Your task to perform on an android device: open app "Walmart Shopping & Grocery" (install if not already installed) and enter user name: "Hans@icloud.com" and password: "executing" Image 0: 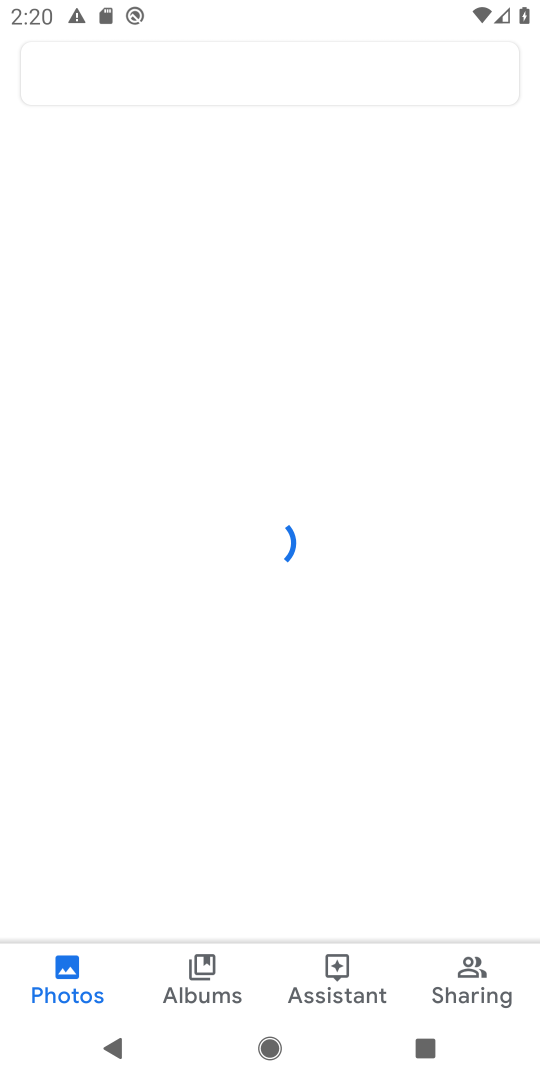
Step 0: press home button
Your task to perform on an android device: open app "Walmart Shopping & Grocery" (install if not already installed) and enter user name: "Hans@icloud.com" and password: "executing" Image 1: 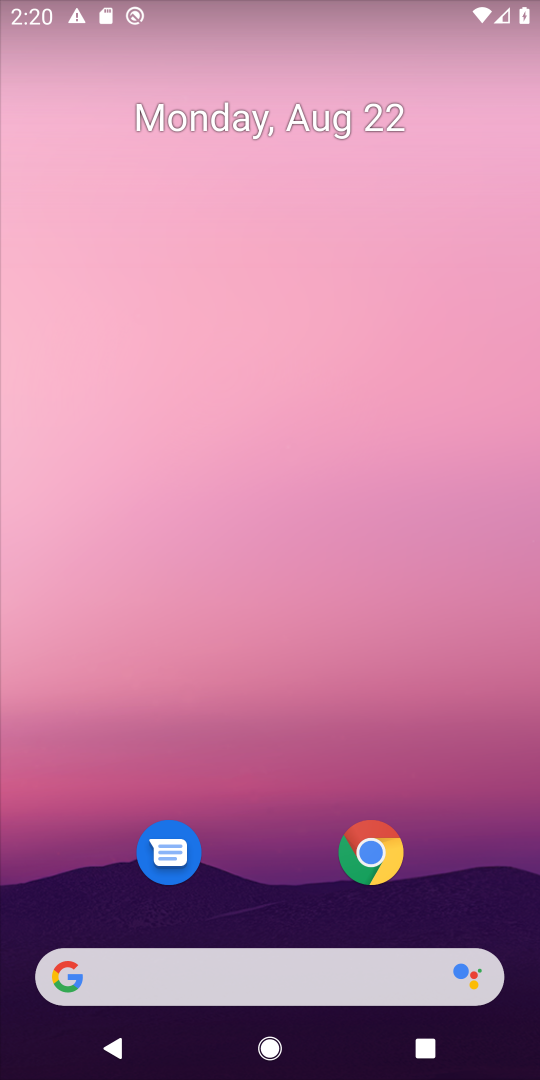
Step 1: drag from (277, 931) to (270, 179)
Your task to perform on an android device: open app "Walmart Shopping & Grocery" (install if not already installed) and enter user name: "Hans@icloud.com" and password: "executing" Image 2: 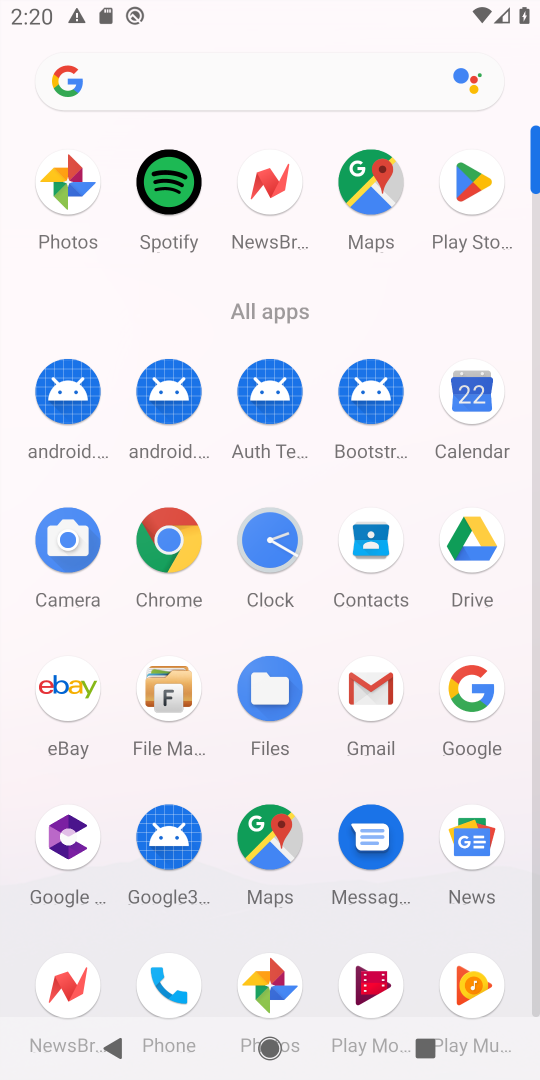
Step 2: click (473, 176)
Your task to perform on an android device: open app "Walmart Shopping & Grocery" (install if not already installed) and enter user name: "Hans@icloud.com" and password: "executing" Image 3: 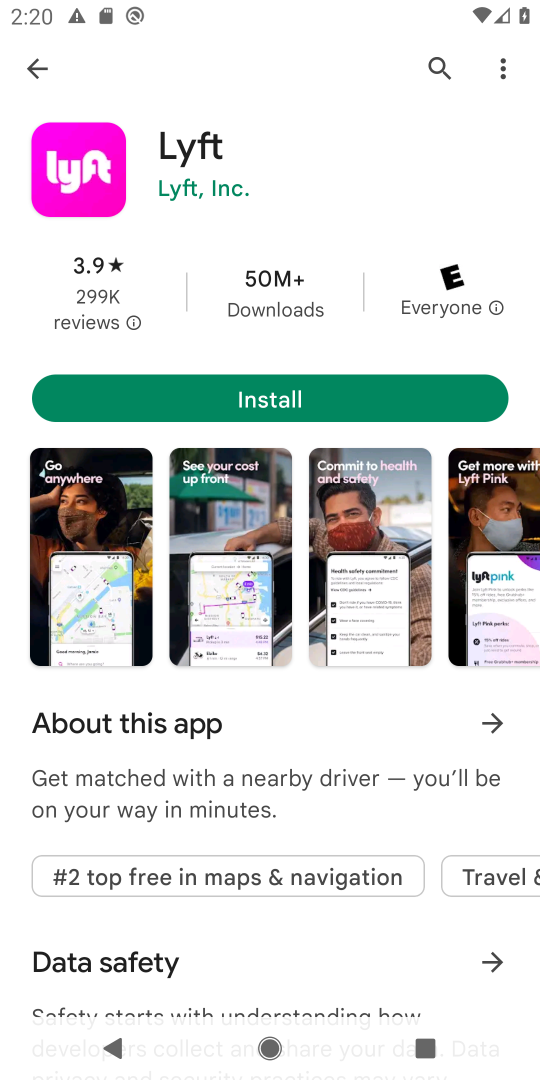
Step 3: click (436, 56)
Your task to perform on an android device: open app "Walmart Shopping & Grocery" (install if not already installed) and enter user name: "Hans@icloud.com" and password: "executing" Image 4: 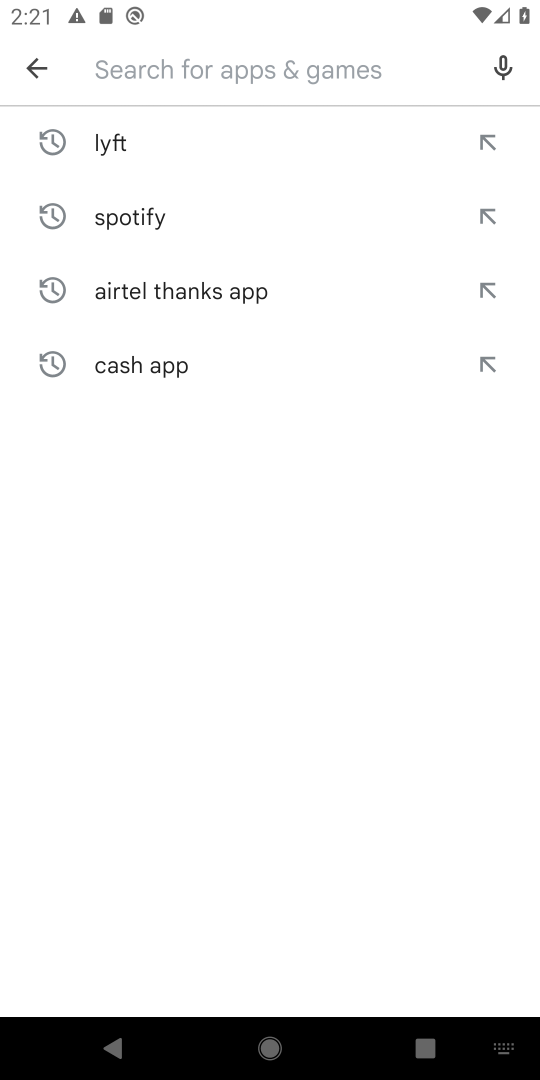
Step 4: type "Walmart Shopping & Grocery"
Your task to perform on an android device: open app "Walmart Shopping & Grocery" (install if not already installed) and enter user name: "Hans@icloud.com" and password: "executing" Image 5: 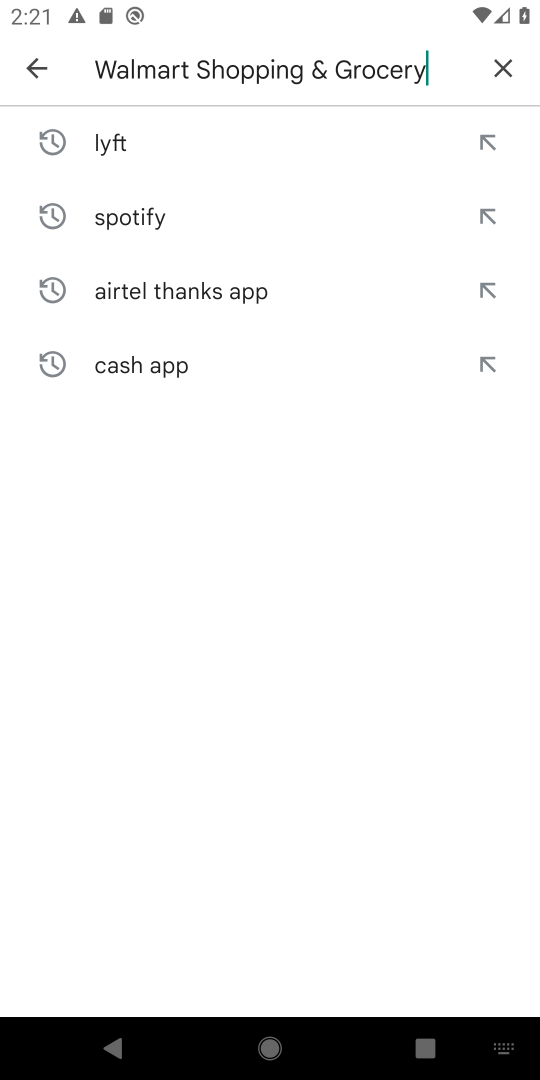
Step 5: type ""
Your task to perform on an android device: open app "Walmart Shopping & Grocery" (install if not already installed) and enter user name: "Hans@icloud.com" and password: "executing" Image 6: 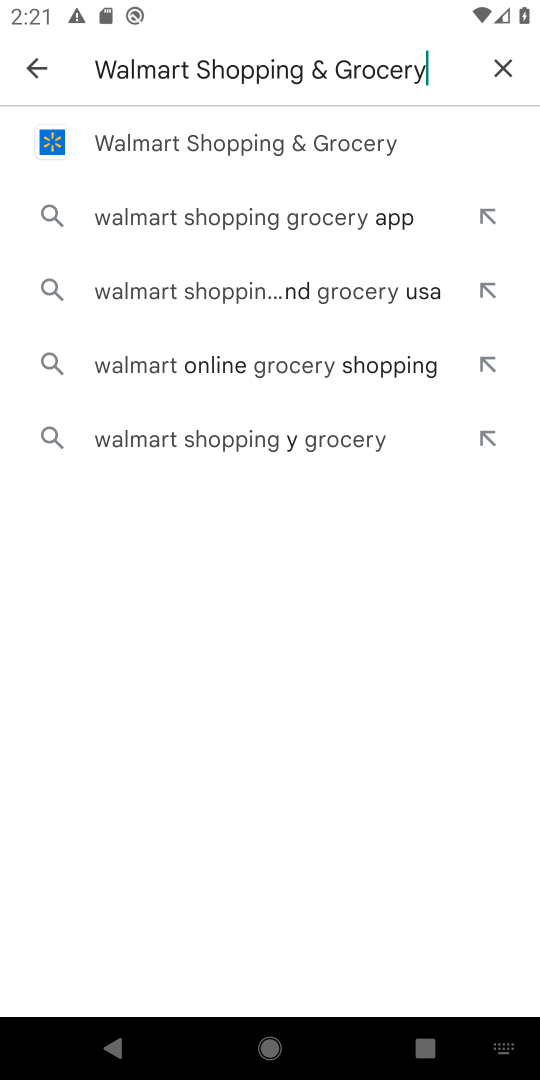
Step 6: click (283, 145)
Your task to perform on an android device: open app "Walmart Shopping & Grocery" (install if not already installed) and enter user name: "Hans@icloud.com" and password: "executing" Image 7: 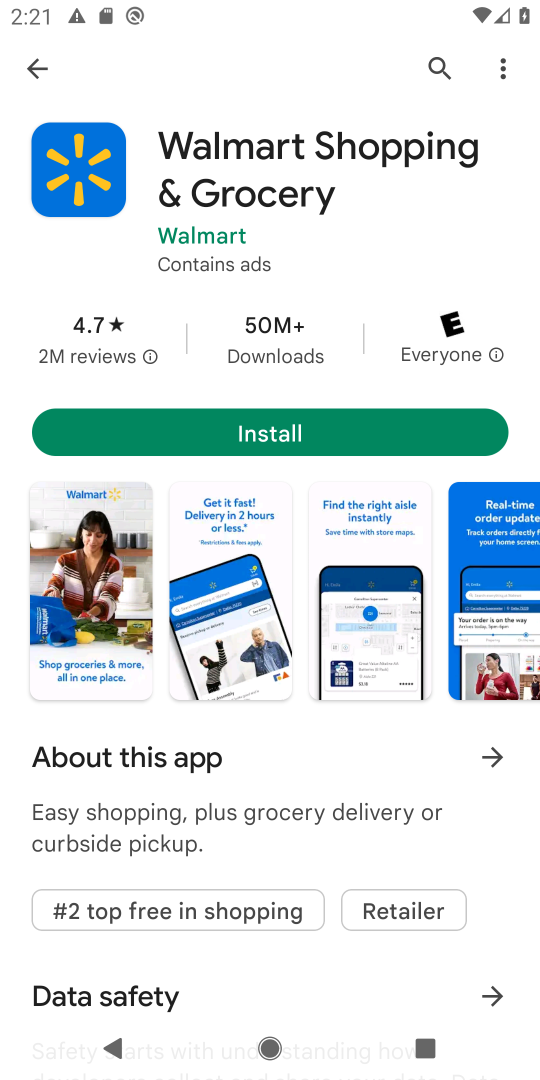
Step 7: click (265, 432)
Your task to perform on an android device: open app "Walmart Shopping & Grocery" (install if not already installed) and enter user name: "Hans@icloud.com" and password: "executing" Image 8: 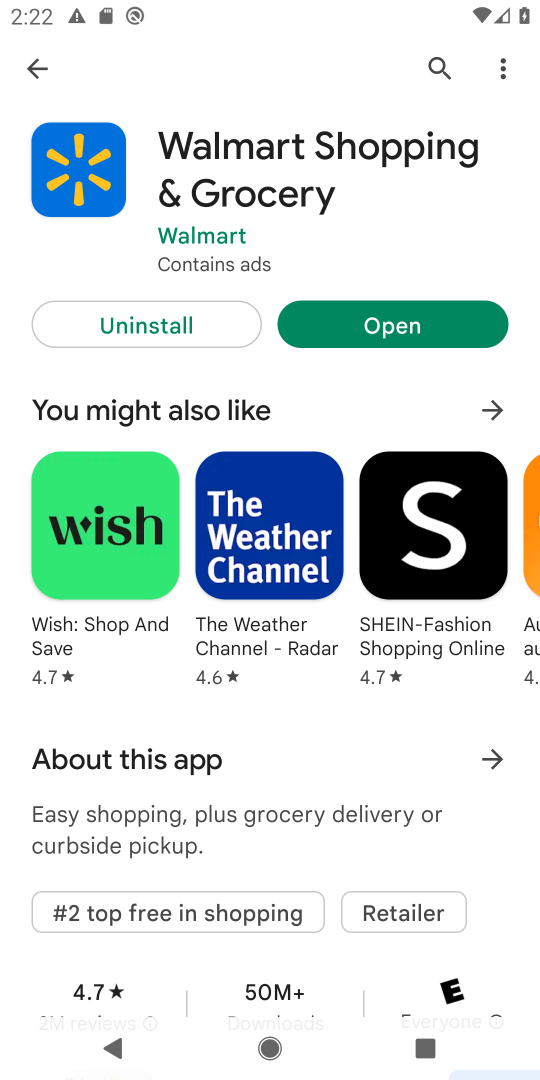
Step 8: click (403, 319)
Your task to perform on an android device: open app "Walmart Shopping & Grocery" (install if not already installed) and enter user name: "Hans@icloud.com" and password: "executing" Image 9: 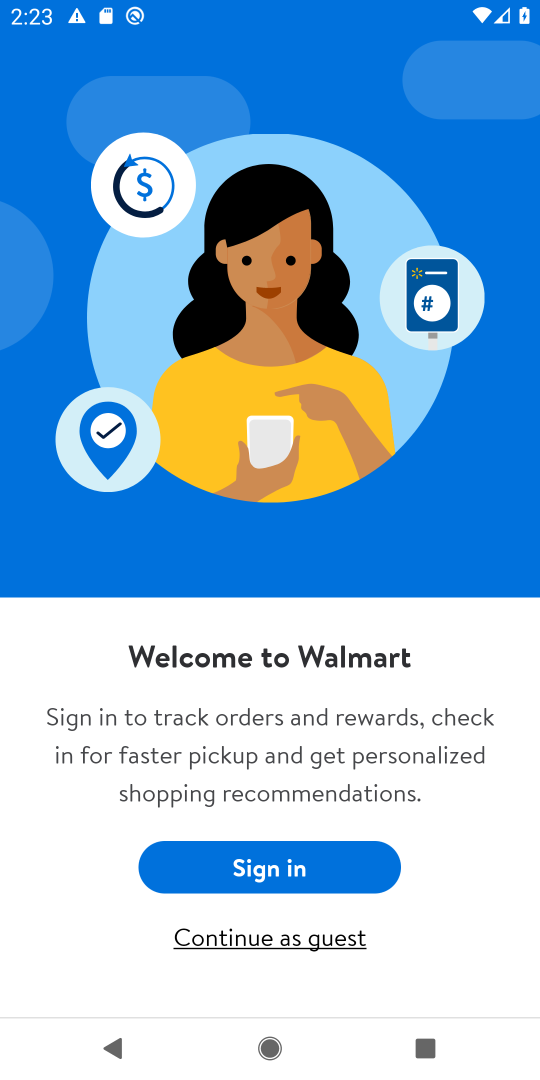
Step 9: click (263, 872)
Your task to perform on an android device: open app "Walmart Shopping & Grocery" (install if not already installed) and enter user name: "Hans@icloud.com" and password: "executing" Image 10: 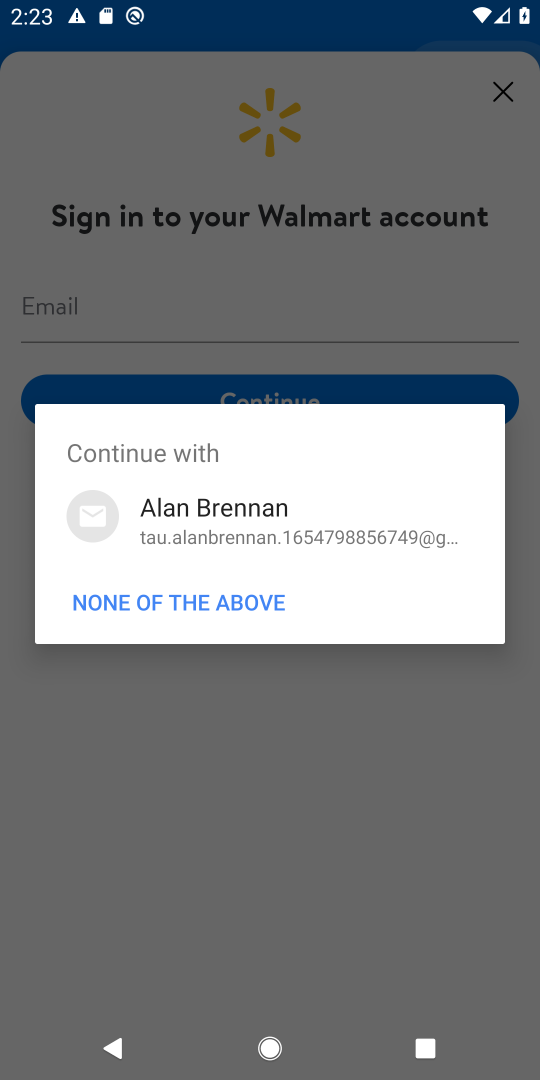
Step 10: click (375, 304)
Your task to perform on an android device: open app "Walmart Shopping & Grocery" (install if not already installed) and enter user name: "Hans@icloud.com" and password: "executing" Image 11: 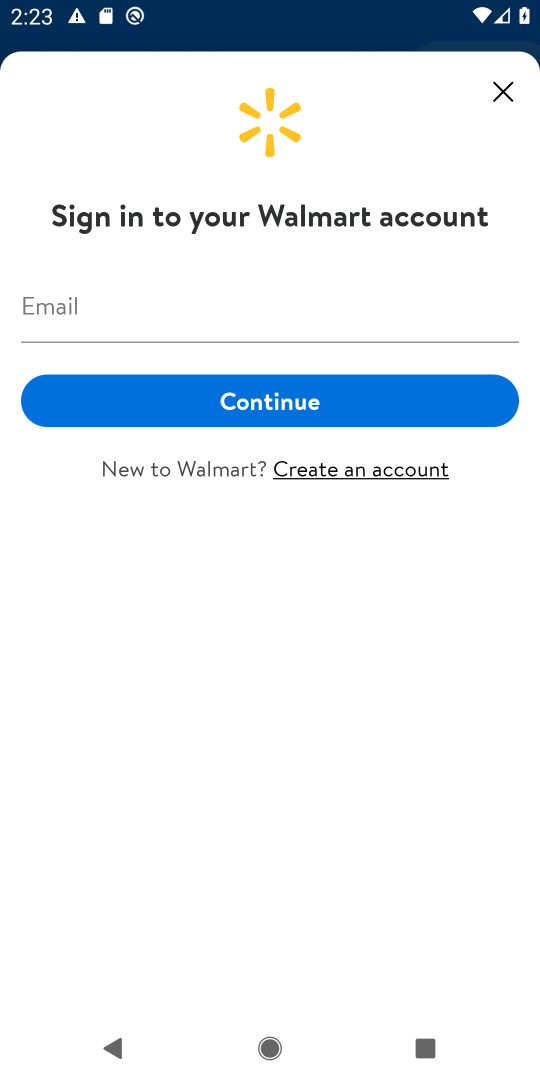
Step 11: click (326, 315)
Your task to perform on an android device: open app "Walmart Shopping & Grocery" (install if not already installed) and enter user name: "Hans@icloud.com" and password: "executing" Image 12: 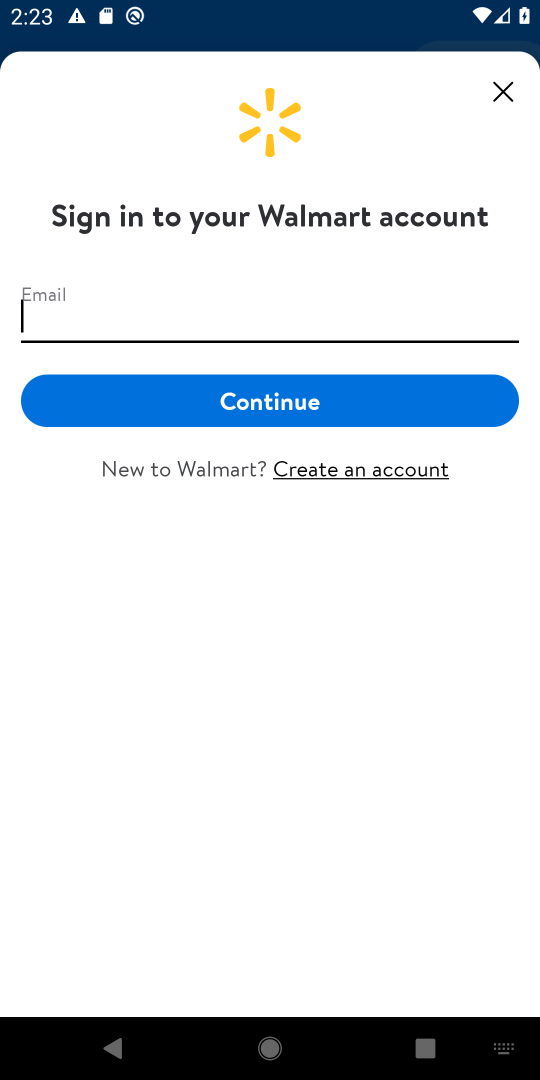
Step 12: type "Hans@icloud.com"
Your task to perform on an android device: open app "Walmart Shopping & Grocery" (install if not already installed) and enter user name: "Hans@icloud.com" and password: "executing" Image 13: 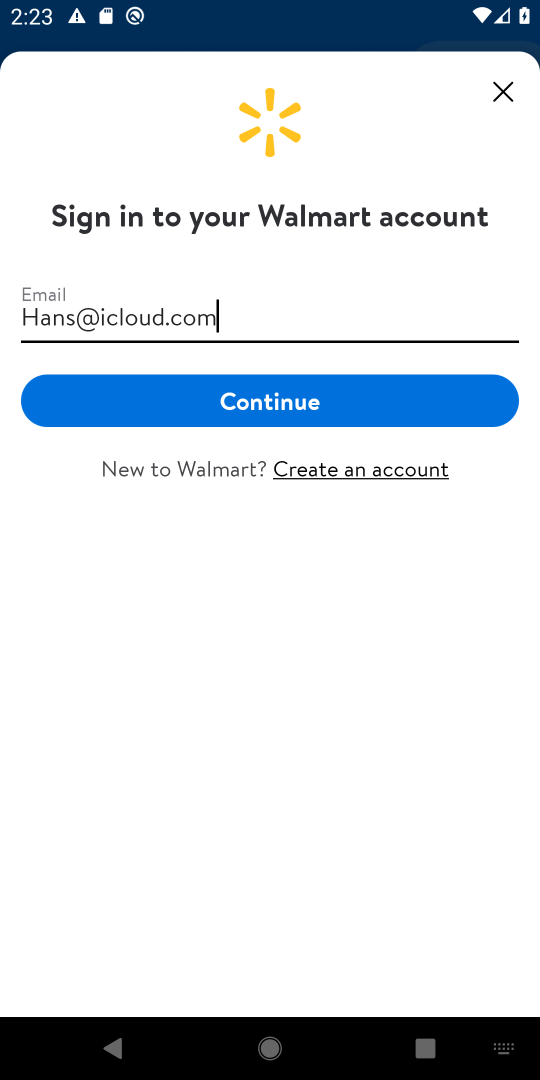
Step 13: type ""
Your task to perform on an android device: open app "Walmart Shopping & Grocery" (install if not already installed) and enter user name: "Hans@icloud.com" and password: "executing" Image 14: 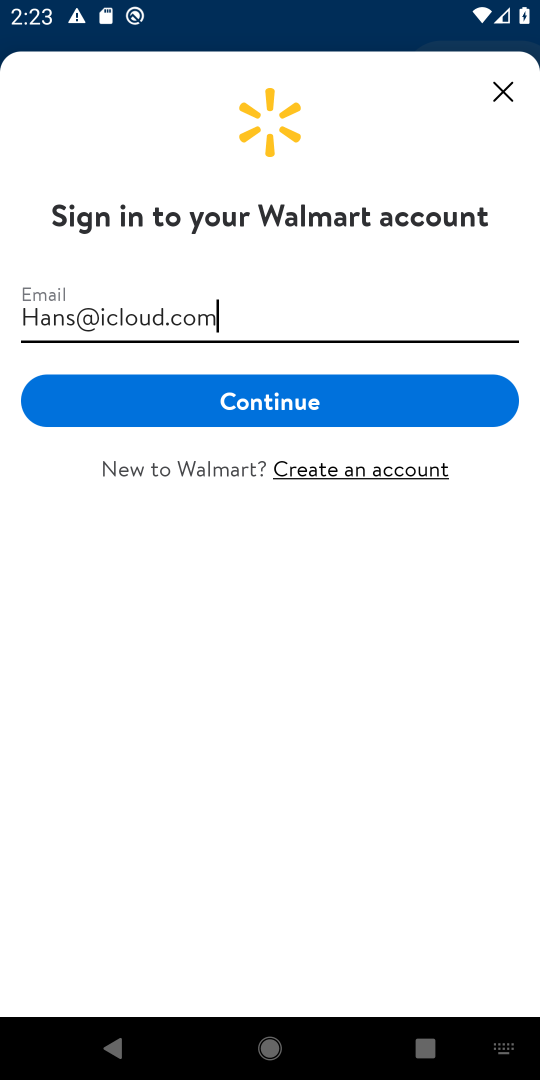
Step 14: click (324, 406)
Your task to perform on an android device: open app "Walmart Shopping & Grocery" (install if not already installed) and enter user name: "Hans@icloud.com" and password: "executing" Image 15: 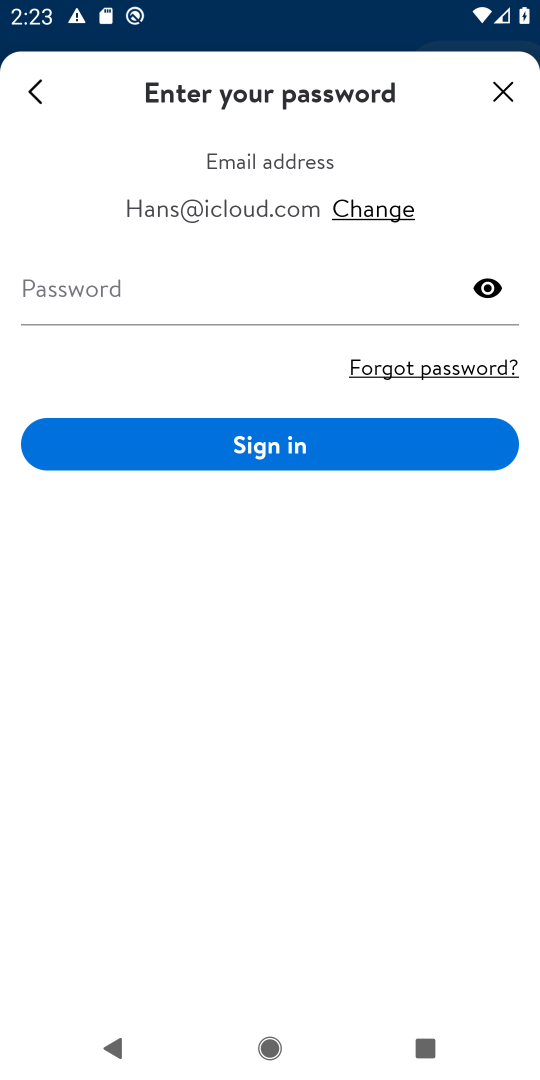
Step 15: click (219, 296)
Your task to perform on an android device: open app "Walmart Shopping & Grocery" (install if not already installed) and enter user name: "Hans@icloud.com" and password: "executing" Image 16: 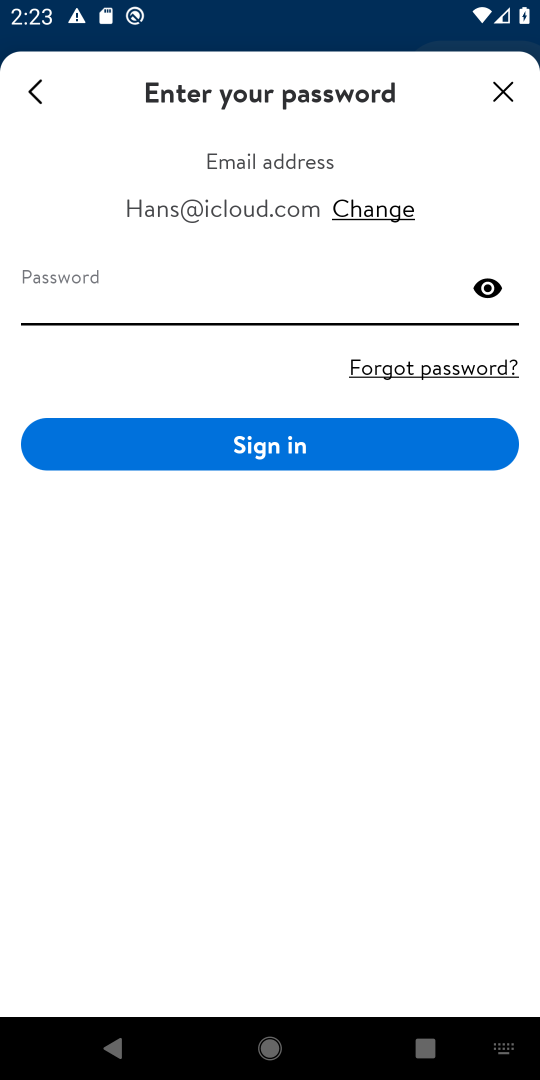
Step 16: type "executing"
Your task to perform on an android device: open app "Walmart Shopping & Grocery" (install if not already installed) and enter user name: "Hans@icloud.com" and password: "executing" Image 17: 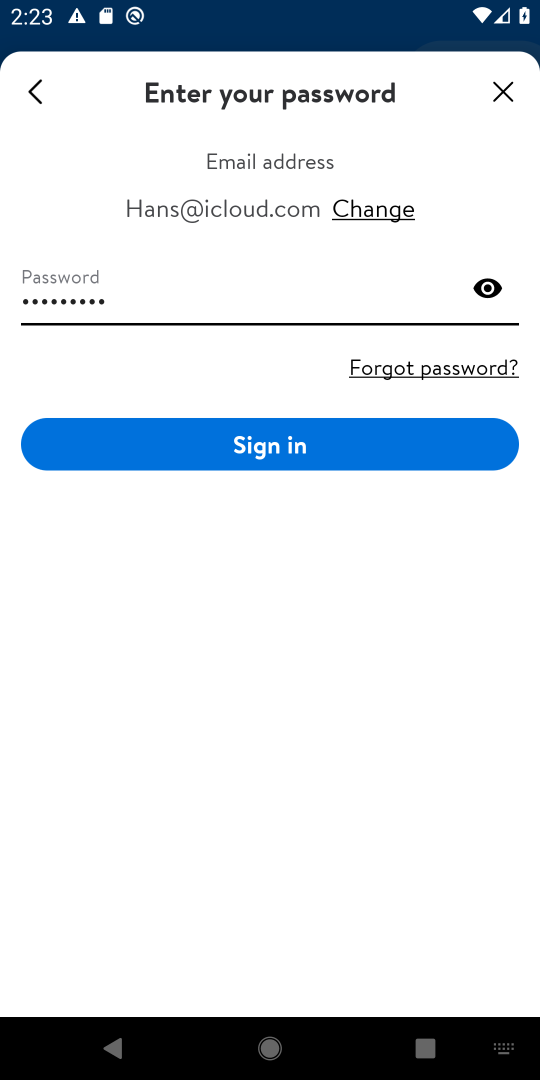
Step 17: task complete